Your task to perform on an android device: turn on the 12-hour format for clock Image 0: 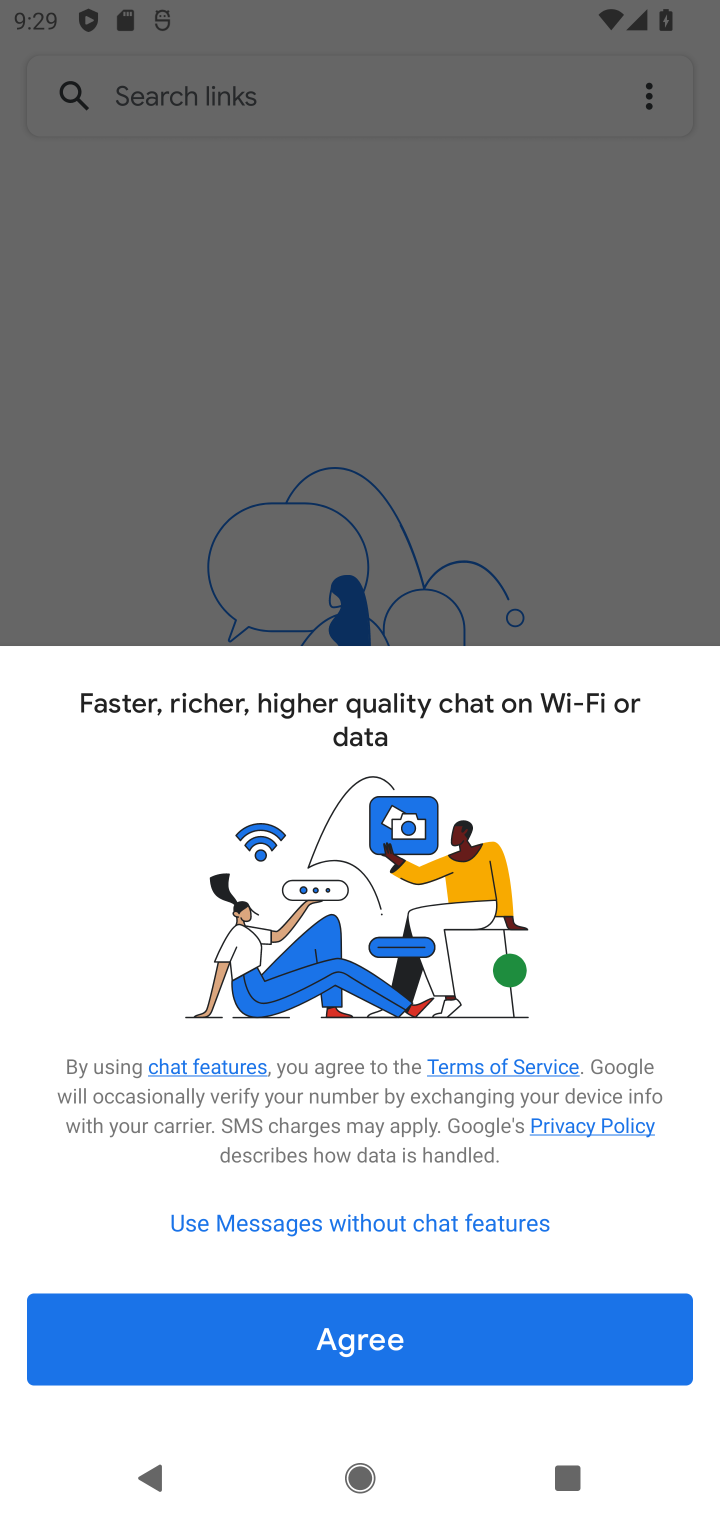
Step 0: press home button
Your task to perform on an android device: turn on the 12-hour format for clock Image 1: 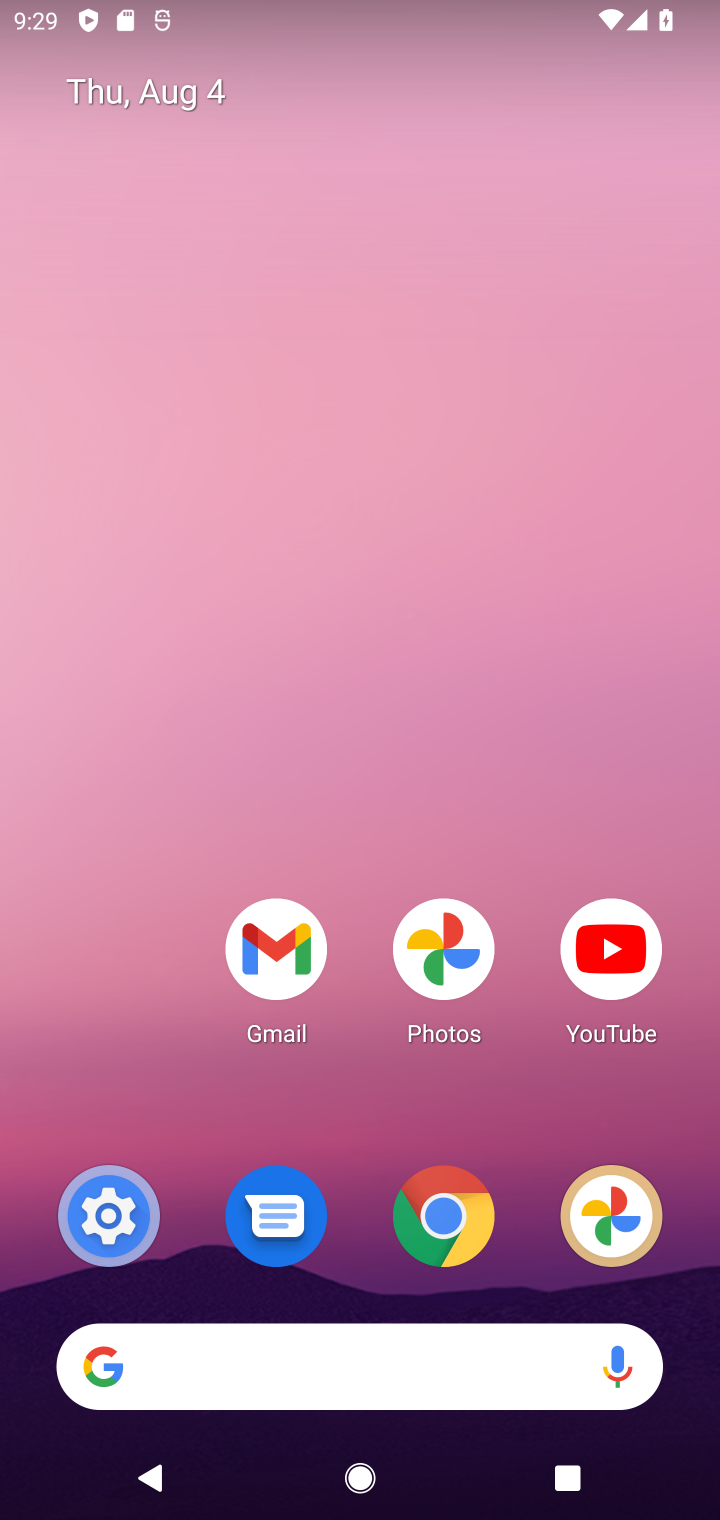
Step 1: drag from (346, 1371) to (457, 377)
Your task to perform on an android device: turn on the 12-hour format for clock Image 2: 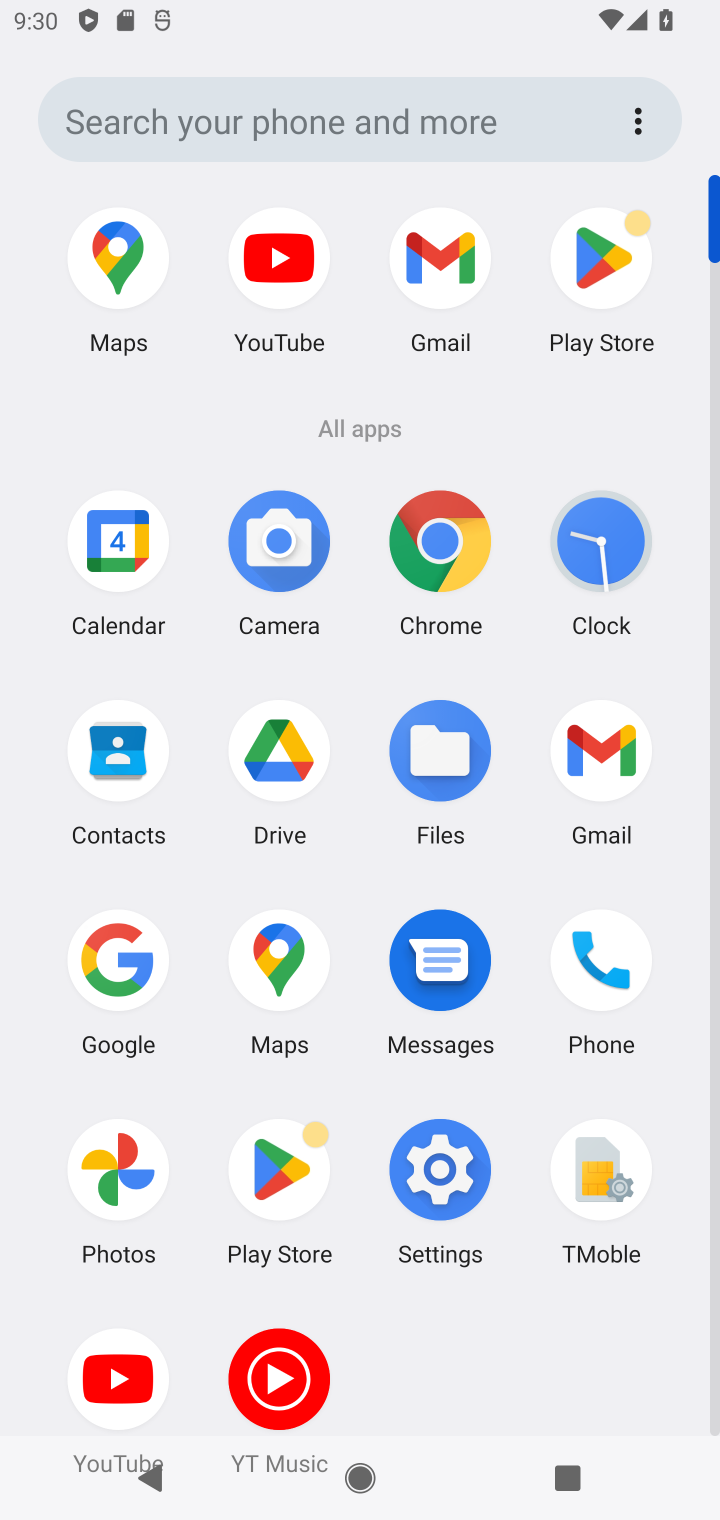
Step 2: click (598, 538)
Your task to perform on an android device: turn on the 12-hour format for clock Image 3: 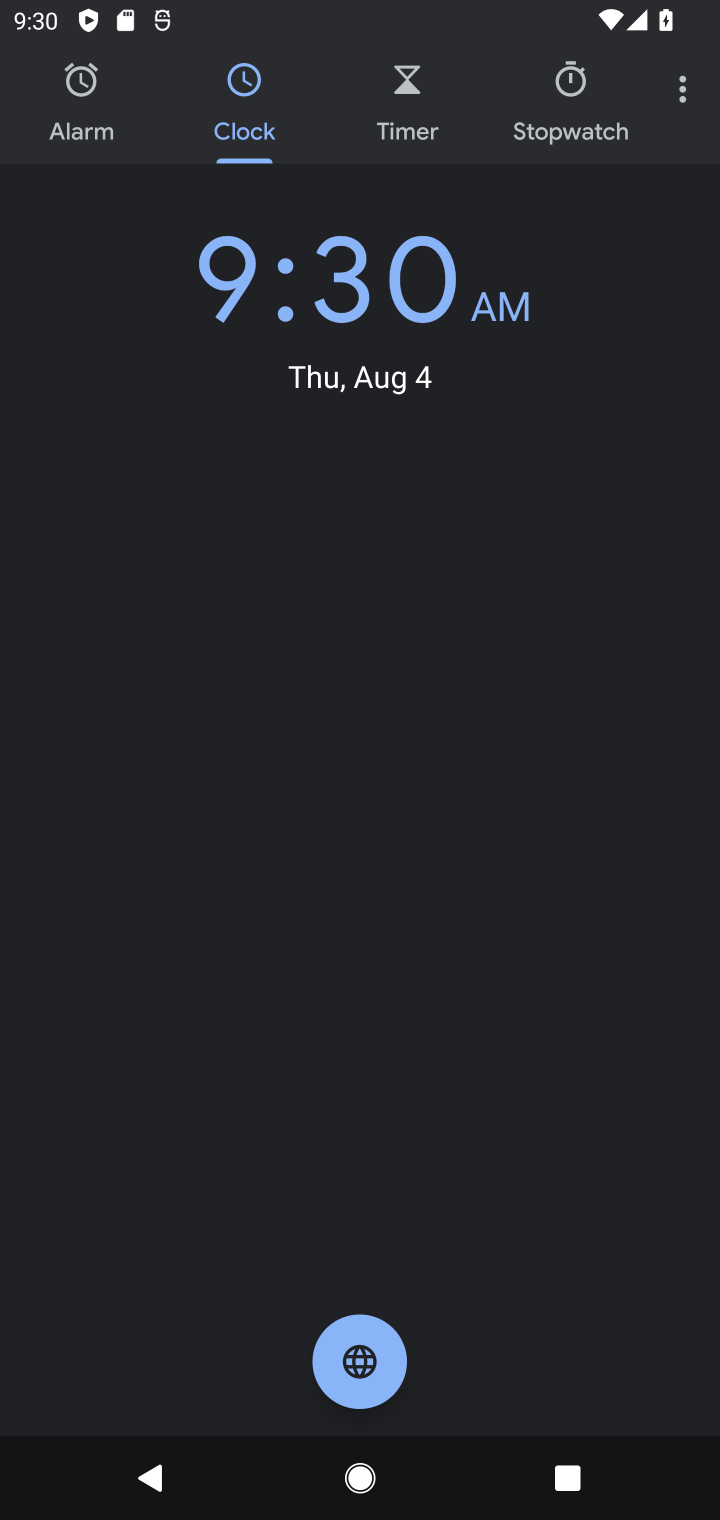
Step 3: click (678, 91)
Your task to perform on an android device: turn on the 12-hour format for clock Image 4: 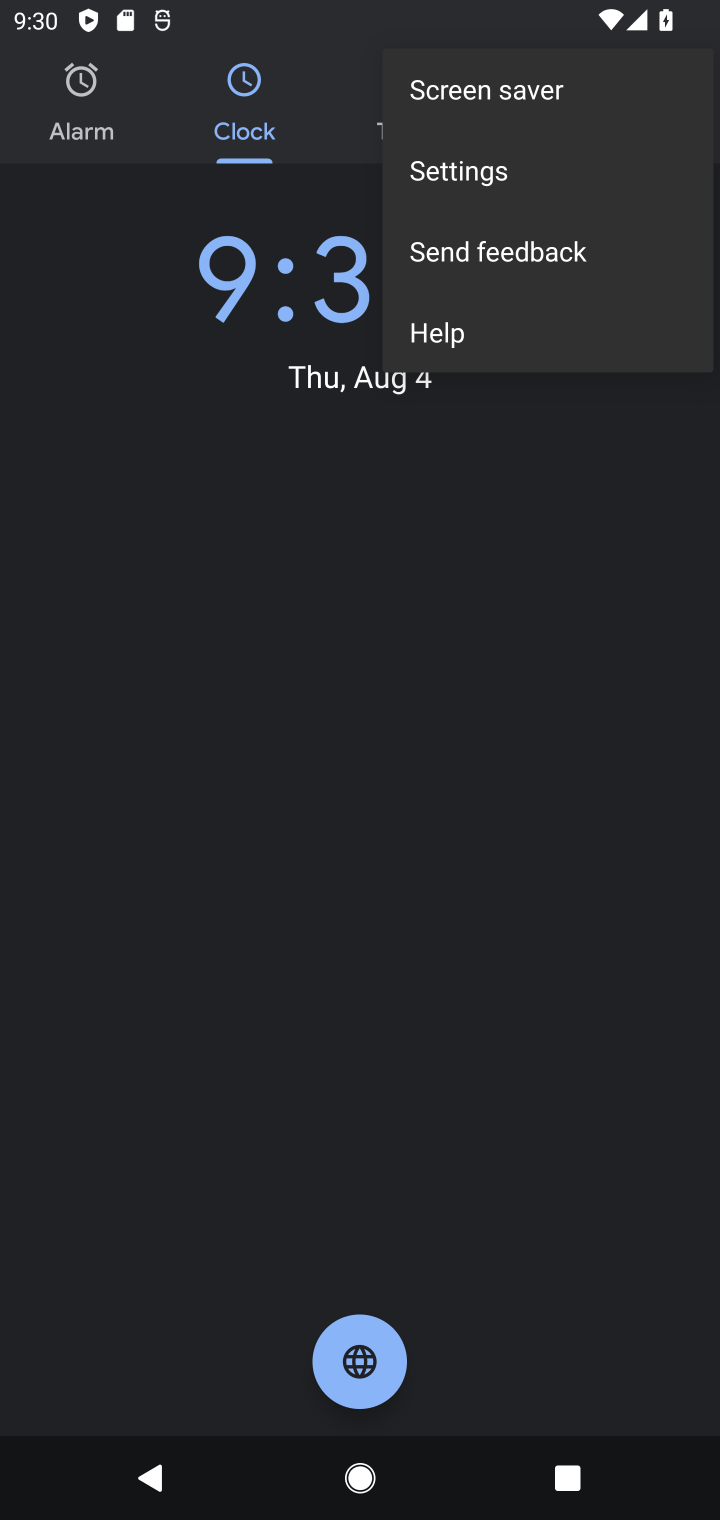
Step 4: click (490, 172)
Your task to perform on an android device: turn on the 12-hour format for clock Image 5: 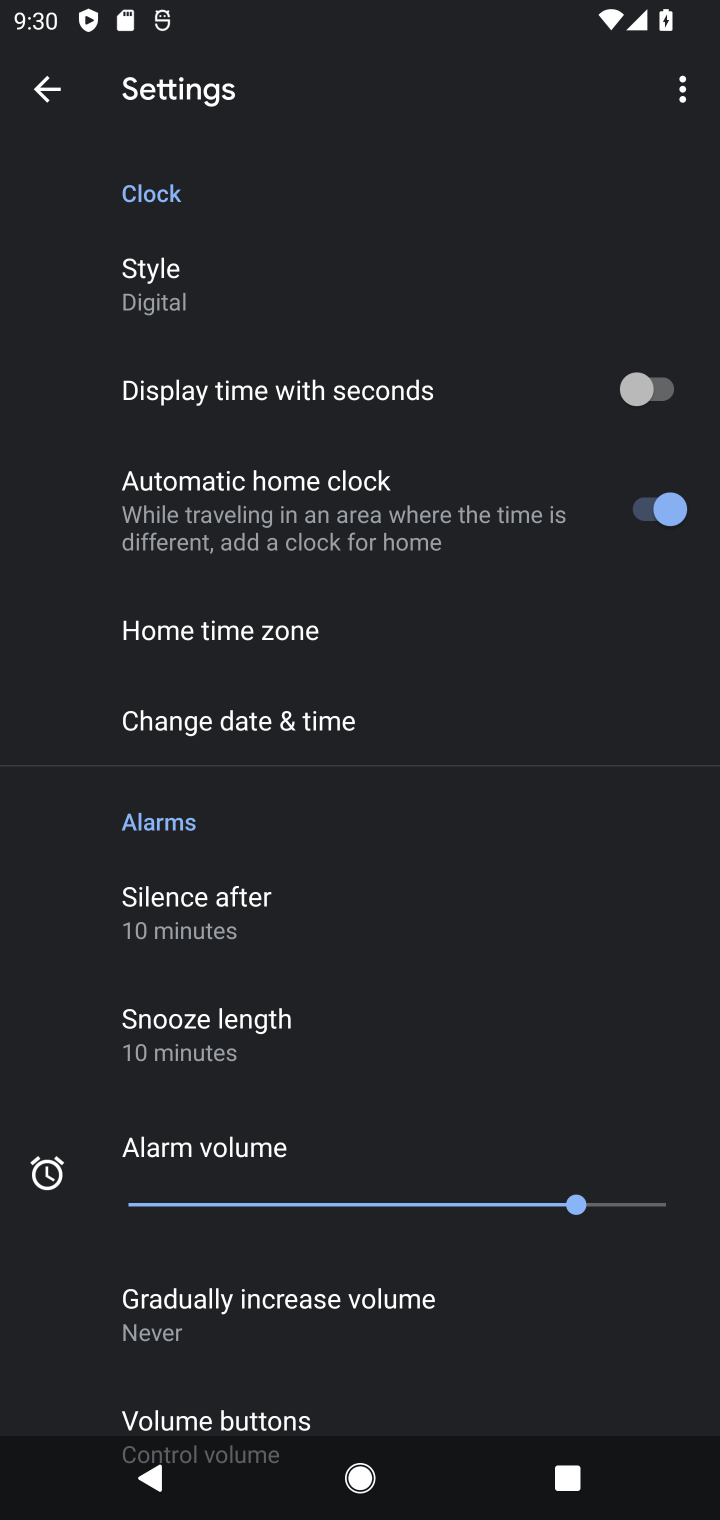
Step 5: click (289, 726)
Your task to perform on an android device: turn on the 12-hour format for clock Image 6: 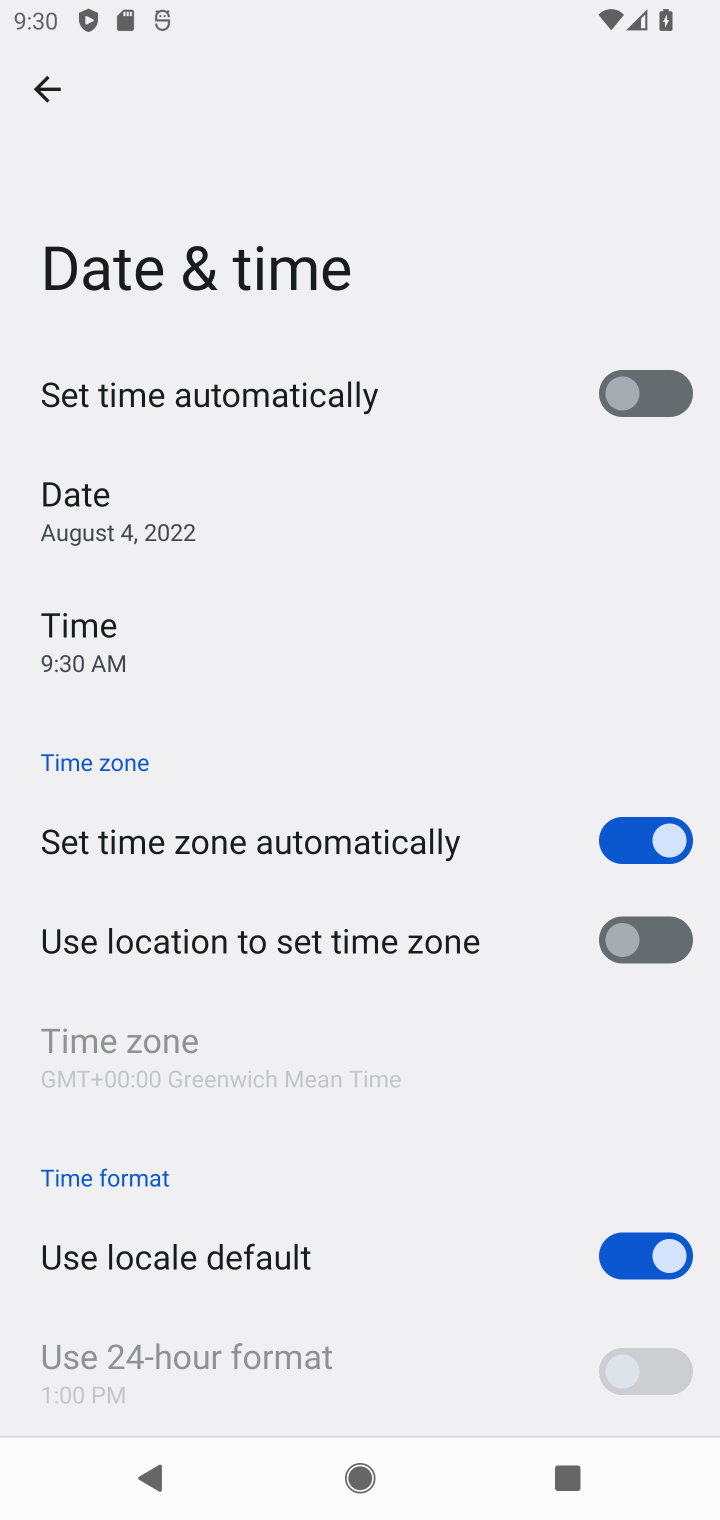
Step 6: task complete